Your task to perform on an android device: check data usage Image 0: 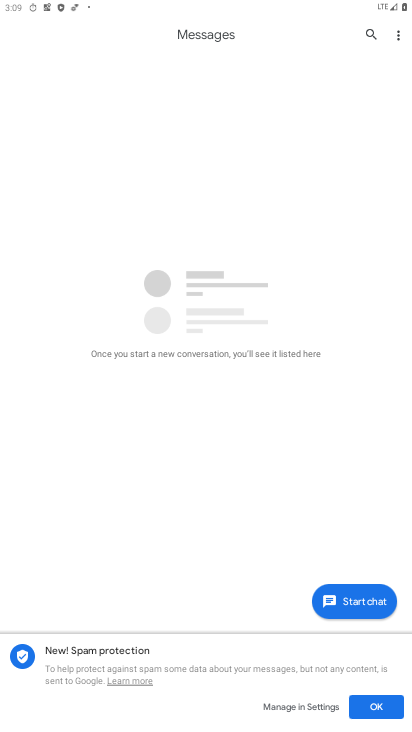
Step 0: press home button
Your task to perform on an android device: check data usage Image 1: 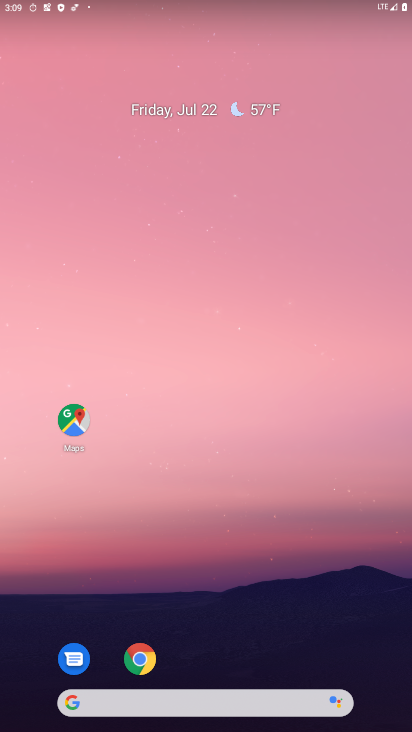
Step 1: drag from (311, 596) to (311, 4)
Your task to perform on an android device: check data usage Image 2: 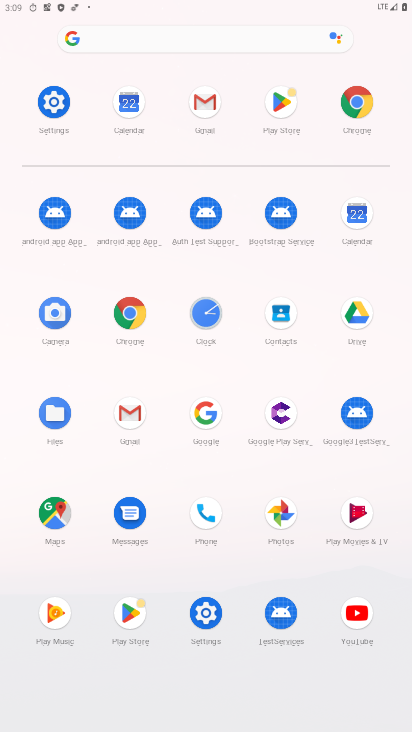
Step 2: click (59, 103)
Your task to perform on an android device: check data usage Image 3: 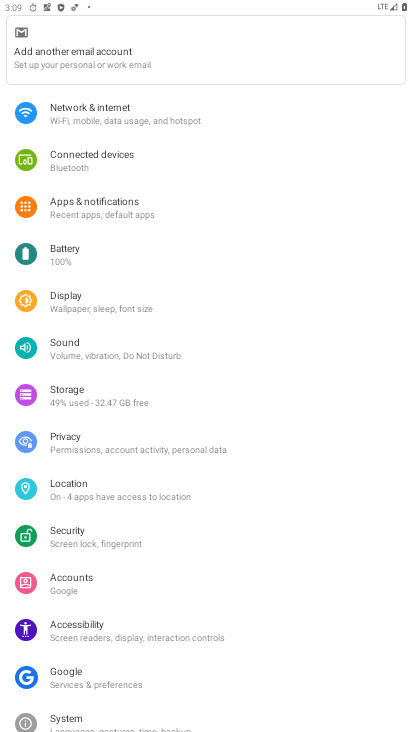
Step 3: click (140, 114)
Your task to perform on an android device: check data usage Image 4: 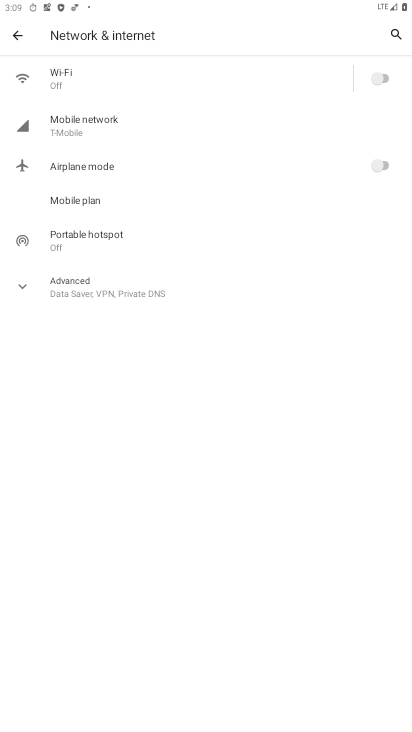
Step 4: click (83, 133)
Your task to perform on an android device: check data usage Image 5: 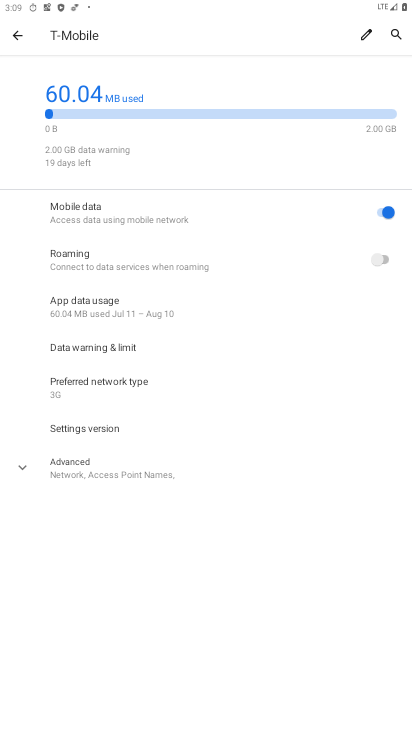
Step 5: click (91, 320)
Your task to perform on an android device: check data usage Image 6: 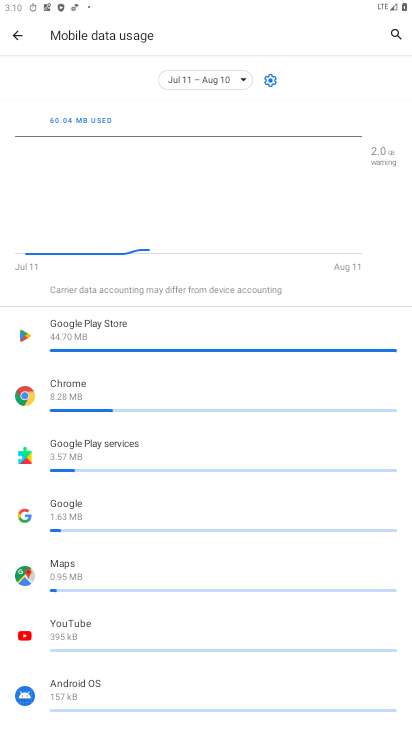
Step 6: task complete